Your task to perform on an android device: Is it going to rain today? Image 0: 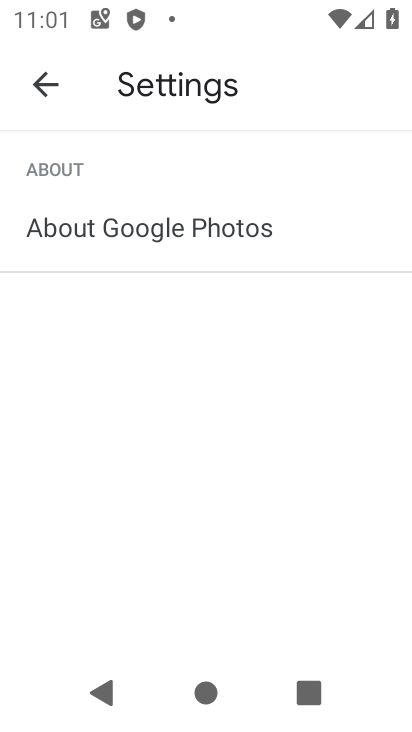
Step 0: press home button
Your task to perform on an android device: Is it going to rain today? Image 1: 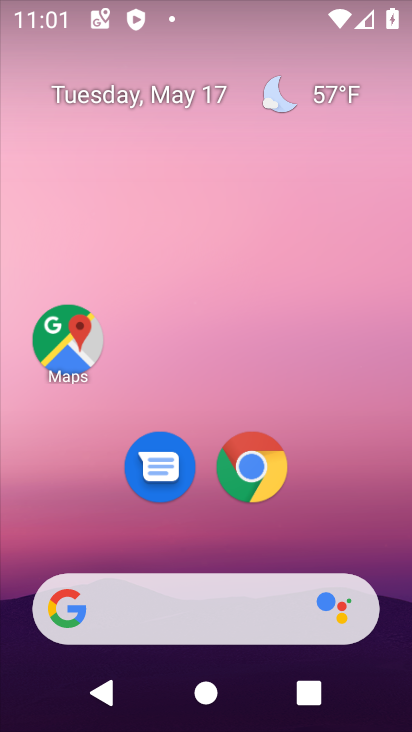
Step 1: drag from (262, 649) to (315, 185)
Your task to perform on an android device: Is it going to rain today? Image 2: 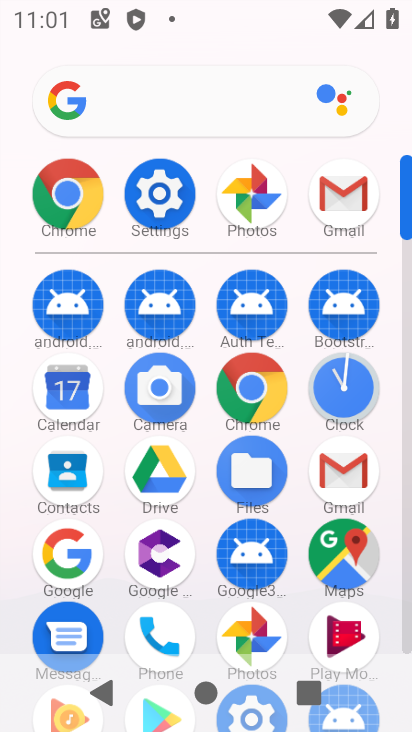
Step 2: click (188, 118)
Your task to perform on an android device: Is it going to rain today? Image 3: 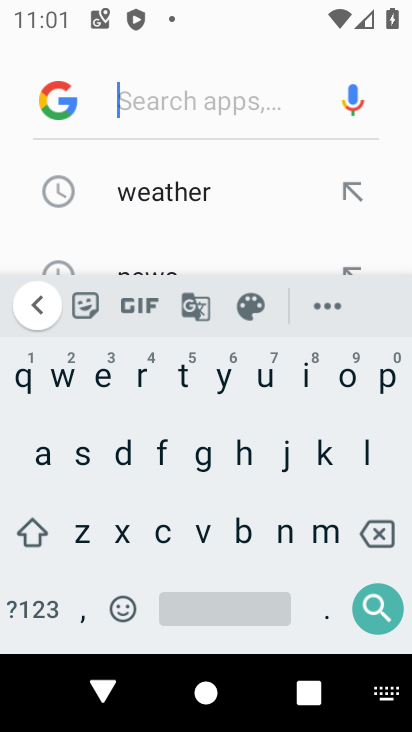
Step 3: click (191, 197)
Your task to perform on an android device: Is it going to rain today? Image 4: 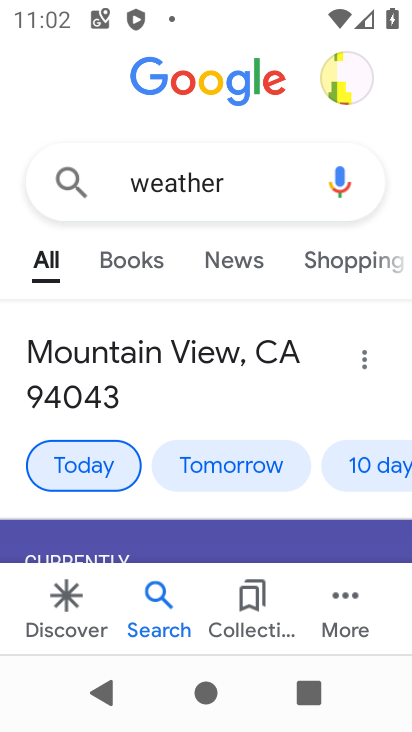
Step 4: task complete